Your task to perform on an android device: Open calendar and show me the second week of next month Image 0: 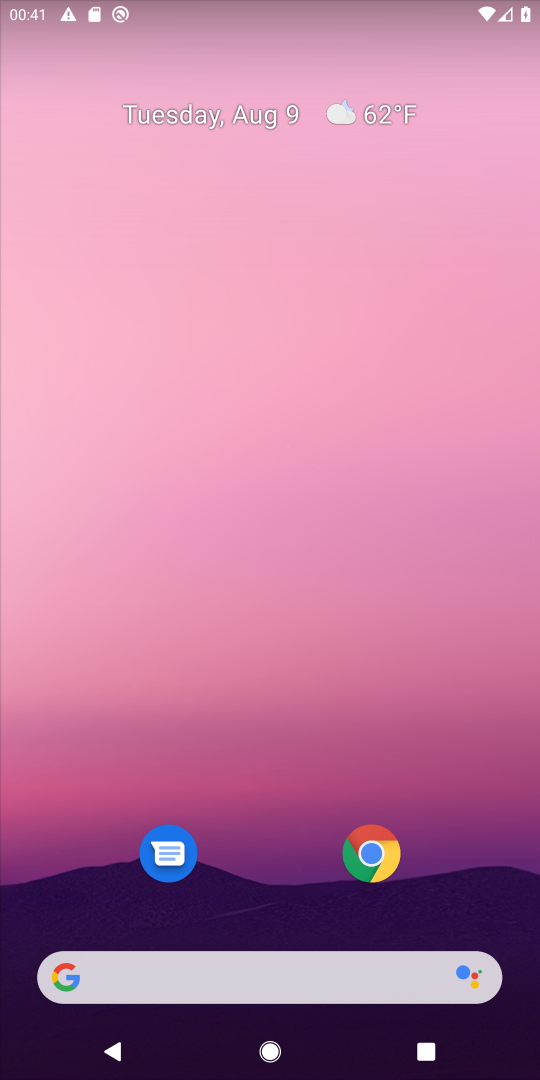
Step 0: drag from (264, 881) to (264, 541)
Your task to perform on an android device: Open calendar and show me the second week of next month Image 1: 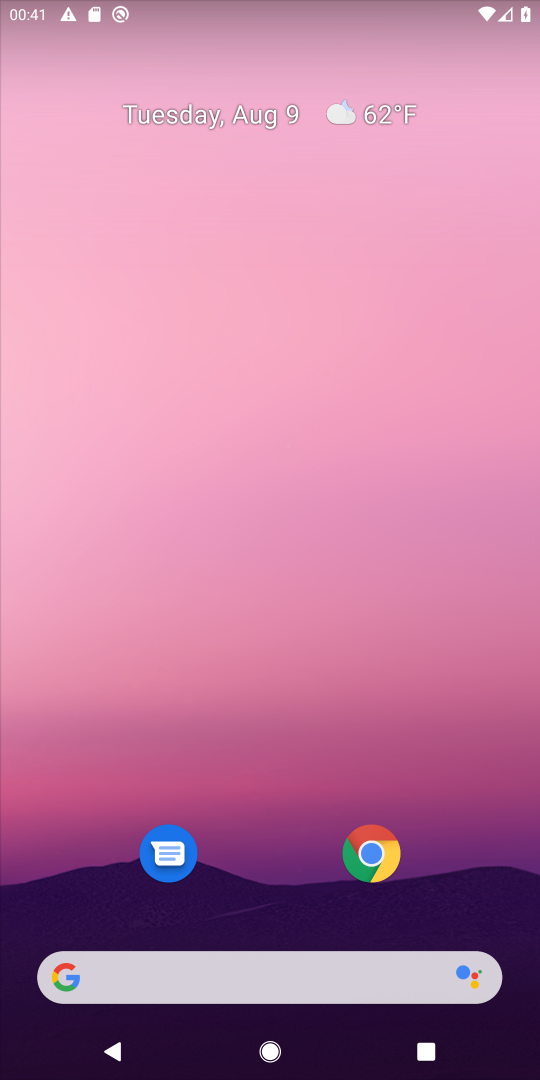
Step 1: drag from (270, 898) to (245, 252)
Your task to perform on an android device: Open calendar and show me the second week of next month Image 2: 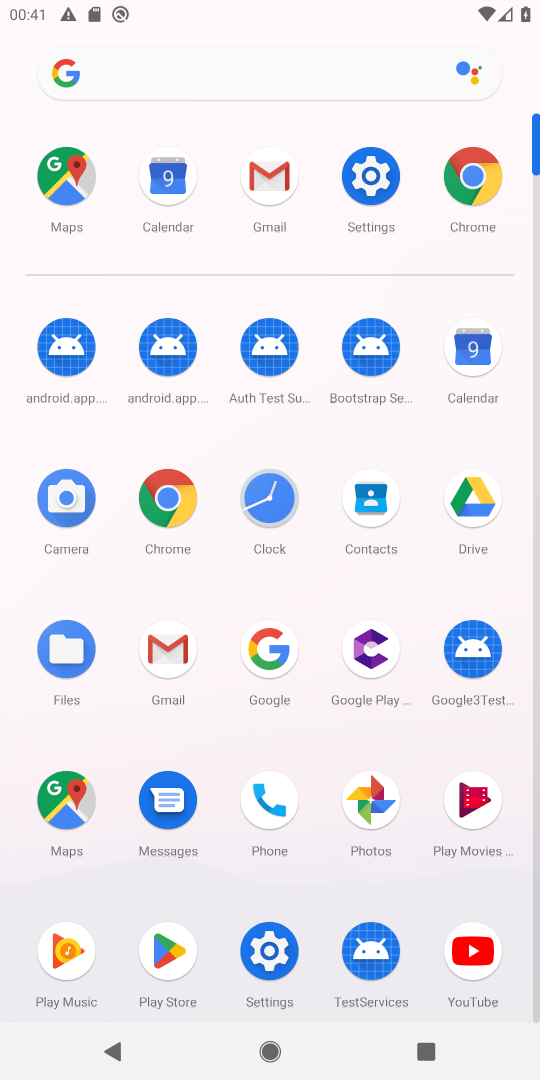
Step 2: click (469, 346)
Your task to perform on an android device: Open calendar and show me the second week of next month Image 3: 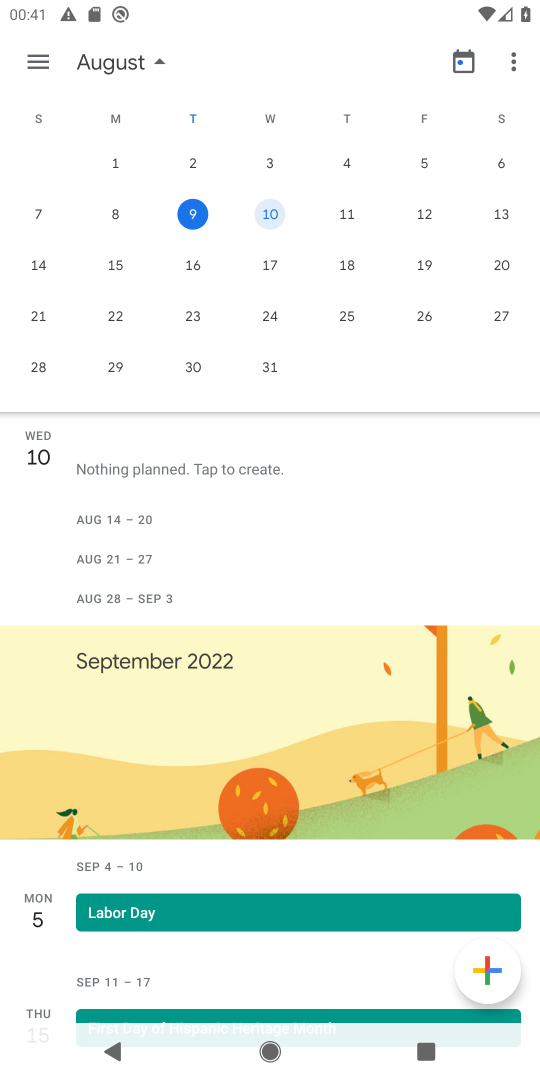
Step 3: drag from (510, 276) to (15, 267)
Your task to perform on an android device: Open calendar and show me the second week of next month Image 4: 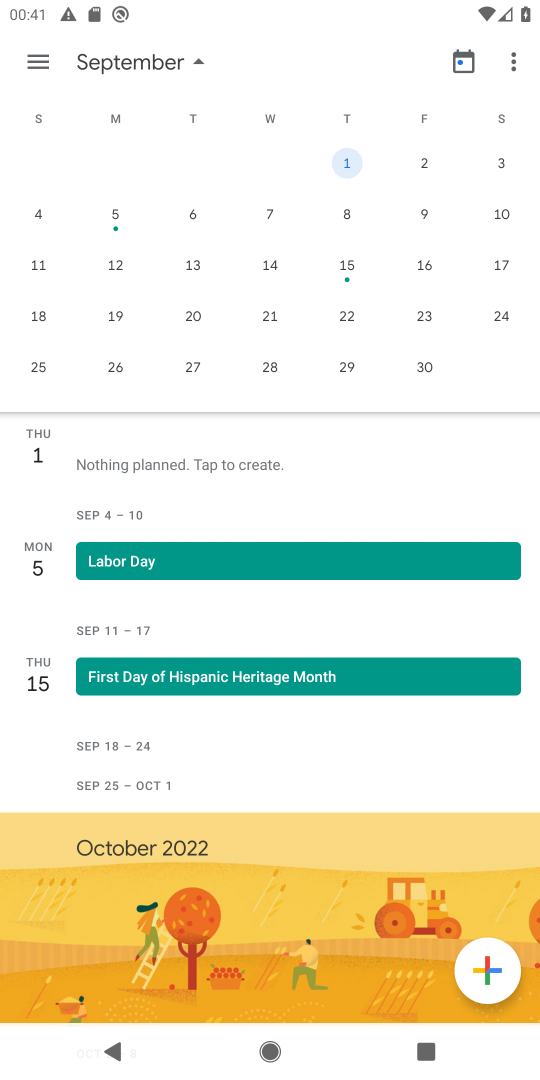
Step 4: click (42, 219)
Your task to perform on an android device: Open calendar and show me the second week of next month Image 5: 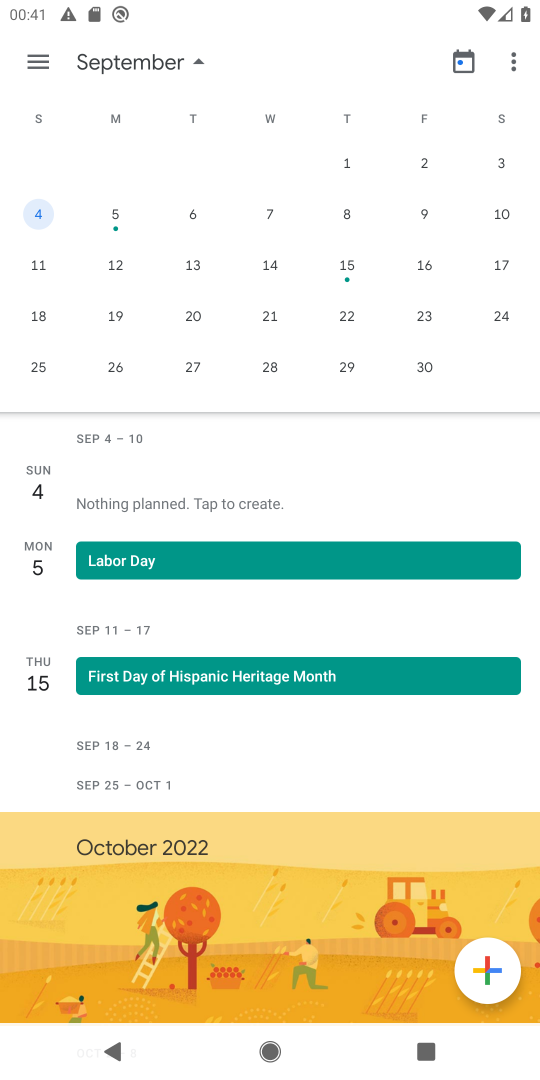
Step 5: task complete